Your task to perform on an android device: Go to Amazon Image 0: 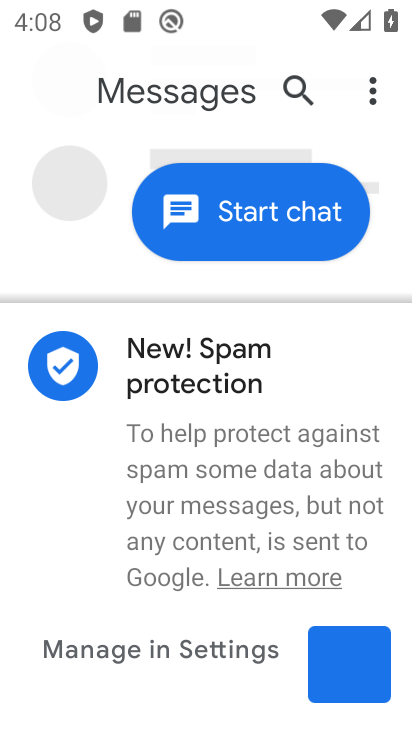
Step 0: press home button
Your task to perform on an android device: Go to Amazon Image 1: 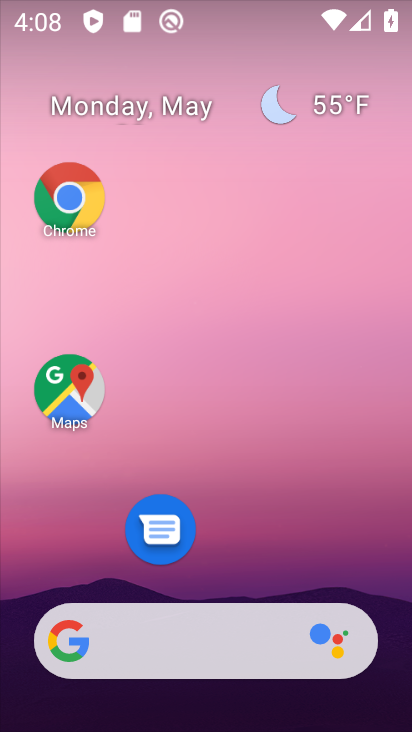
Step 1: drag from (219, 627) to (46, 42)
Your task to perform on an android device: Go to Amazon Image 2: 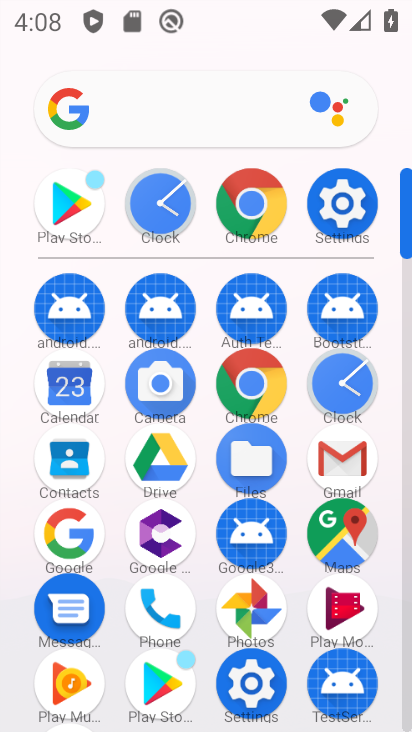
Step 2: click (274, 225)
Your task to perform on an android device: Go to Amazon Image 3: 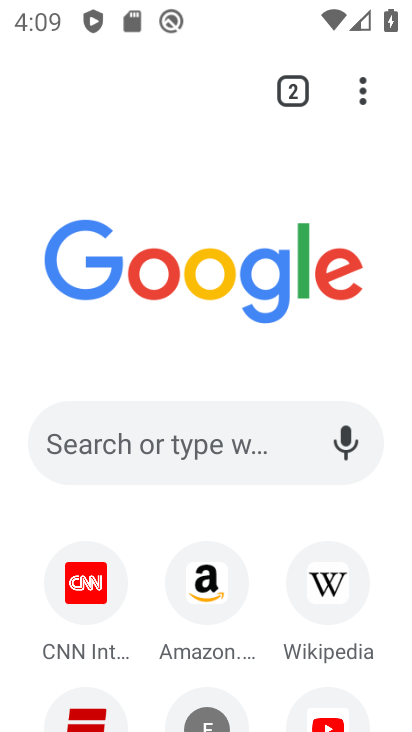
Step 3: click (223, 607)
Your task to perform on an android device: Go to Amazon Image 4: 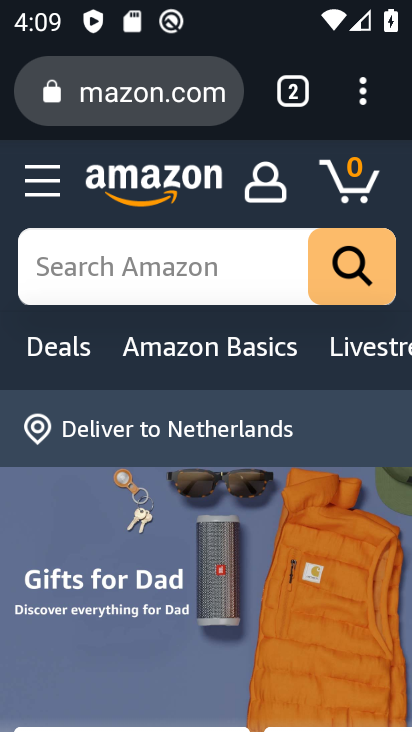
Step 4: task complete